Your task to perform on an android device: delete the emails in spam in the gmail app Image 0: 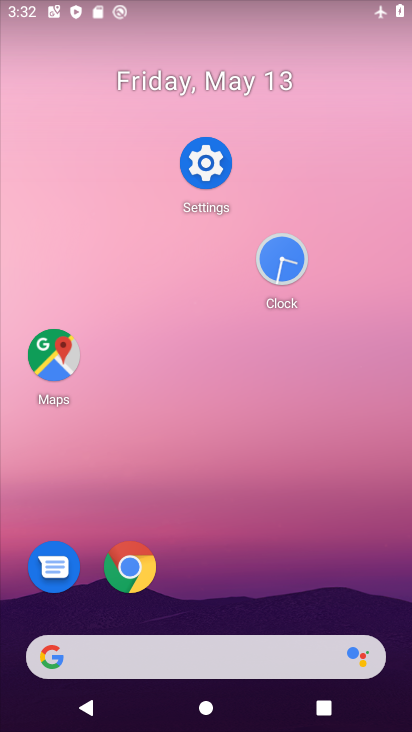
Step 0: click (229, 549)
Your task to perform on an android device: delete the emails in spam in the gmail app Image 1: 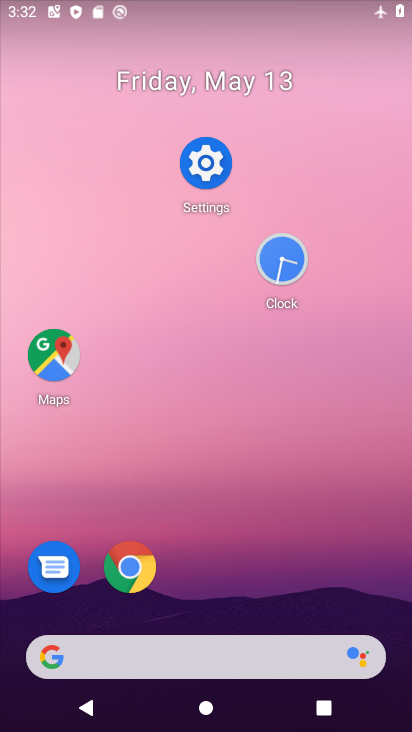
Step 1: click (229, 534)
Your task to perform on an android device: delete the emails in spam in the gmail app Image 2: 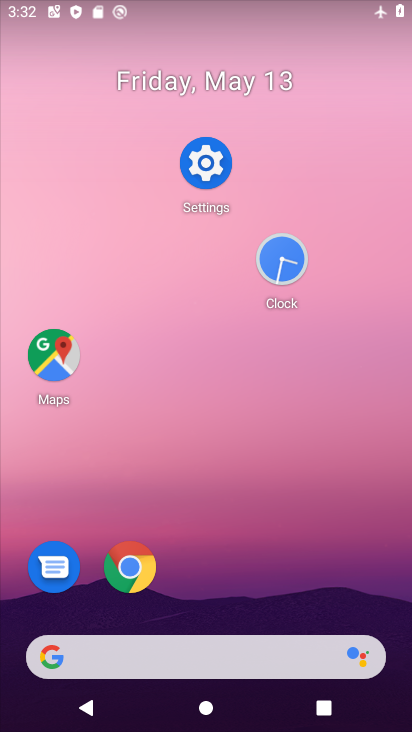
Step 2: drag from (229, 534) to (294, 94)
Your task to perform on an android device: delete the emails in spam in the gmail app Image 3: 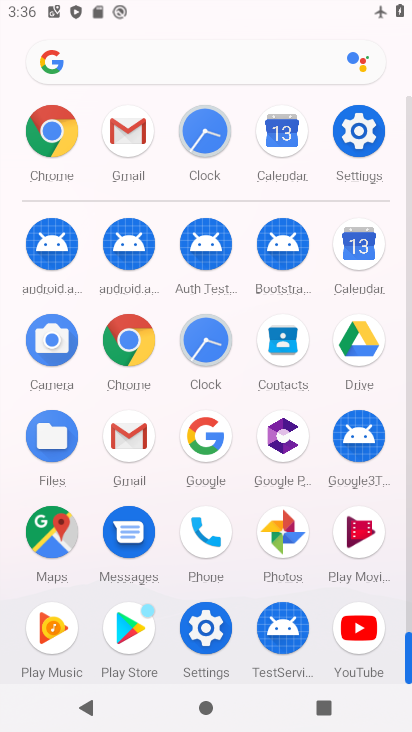
Step 3: click (135, 452)
Your task to perform on an android device: delete the emails in spam in the gmail app Image 4: 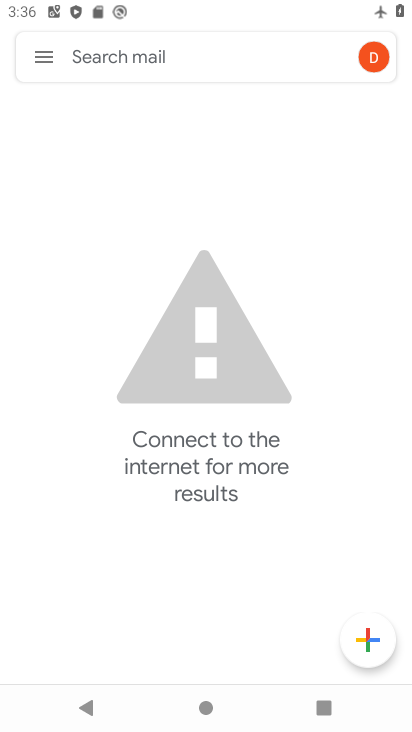
Step 4: click (54, 83)
Your task to perform on an android device: delete the emails in spam in the gmail app Image 5: 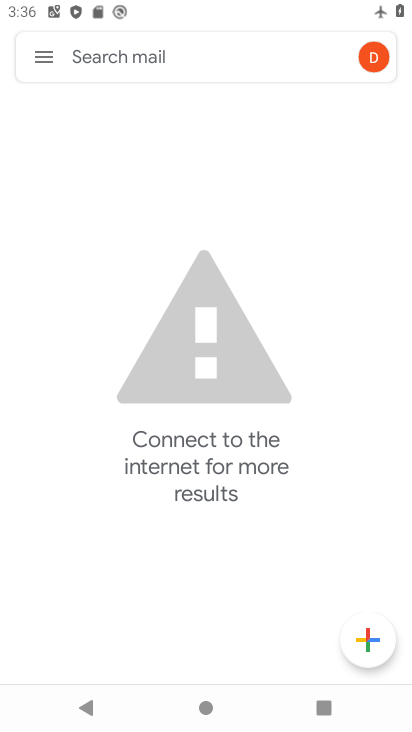
Step 5: task complete